Your task to perform on an android device: Look up the best rated drill on Lowes. Image 0: 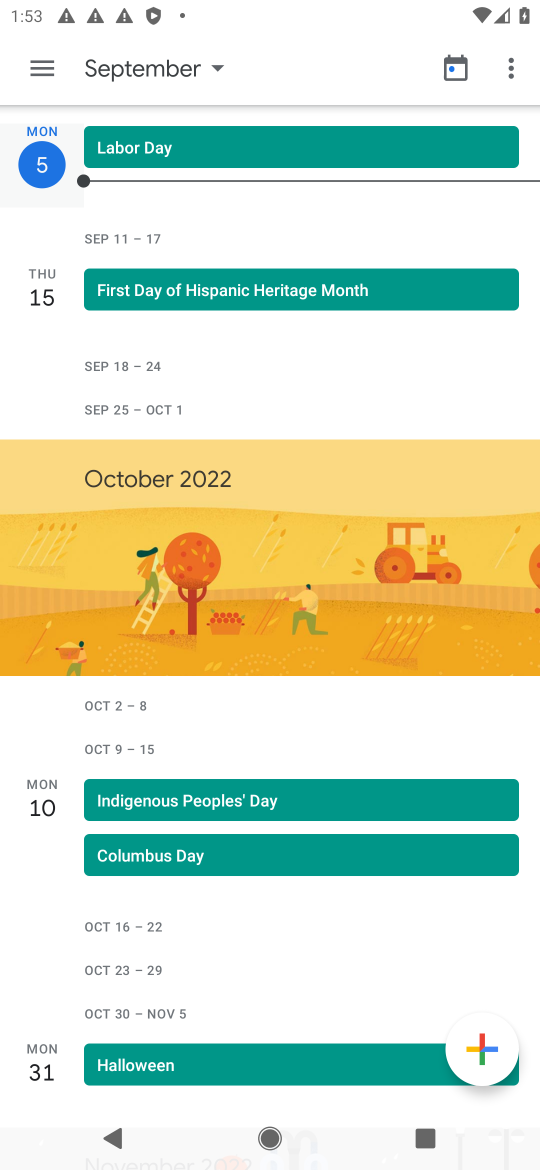
Step 0: press home button
Your task to perform on an android device: Look up the best rated drill on Lowes. Image 1: 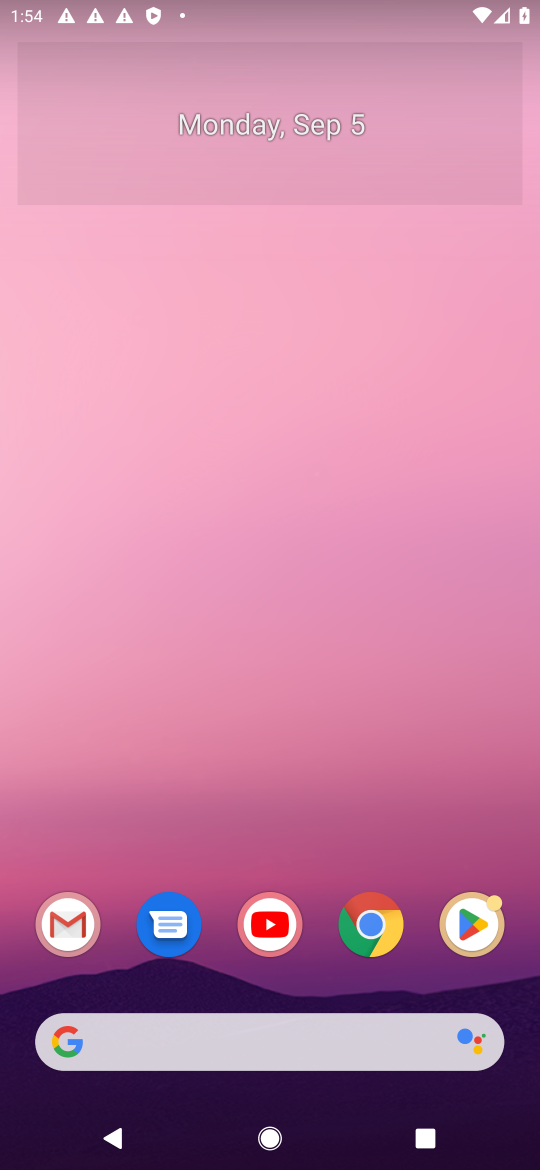
Step 1: drag from (322, 990) to (357, 430)
Your task to perform on an android device: Look up the best rated drill on Lowes. Image 2: 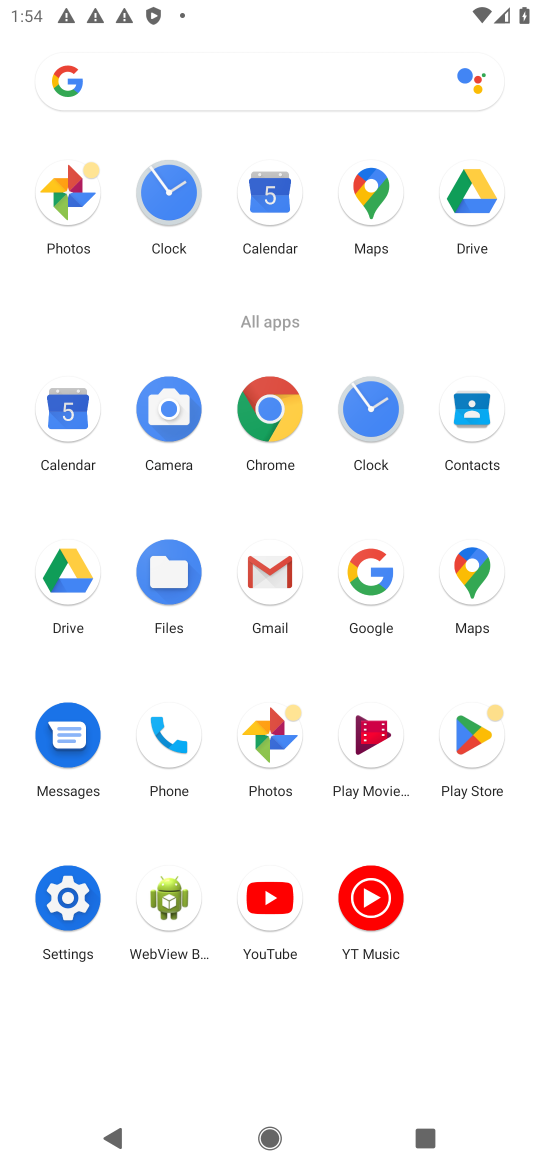
Step 2: click (272, 450)
Your task to perform on an android device: Look up the best rated drill on Lowes. Image 3: 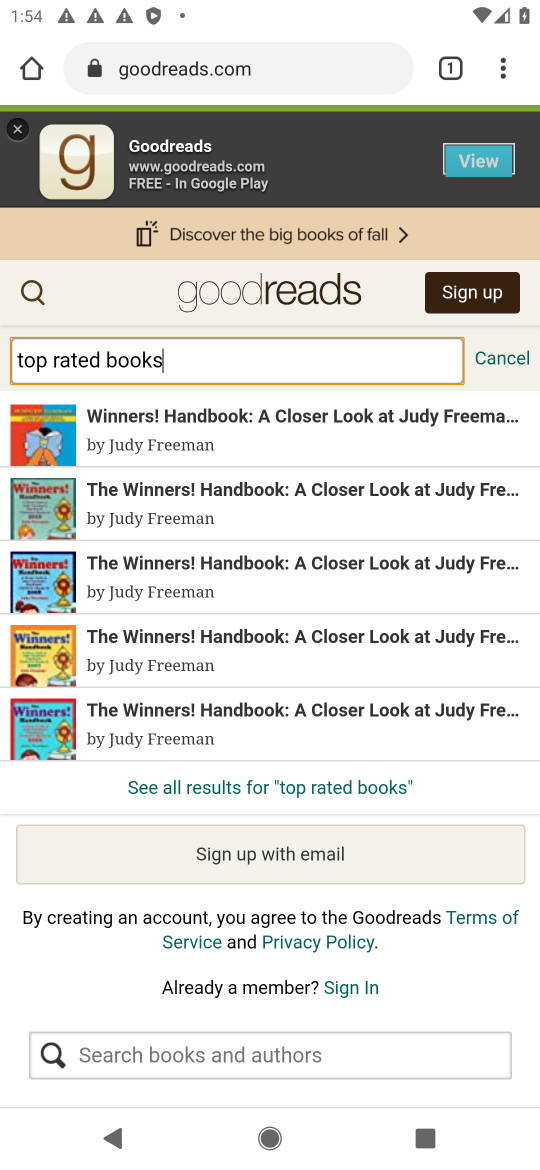
Step 3: click (335, 72)
Your task to perform on an android device: Look up the best rated drill on Lowes. Image 4: 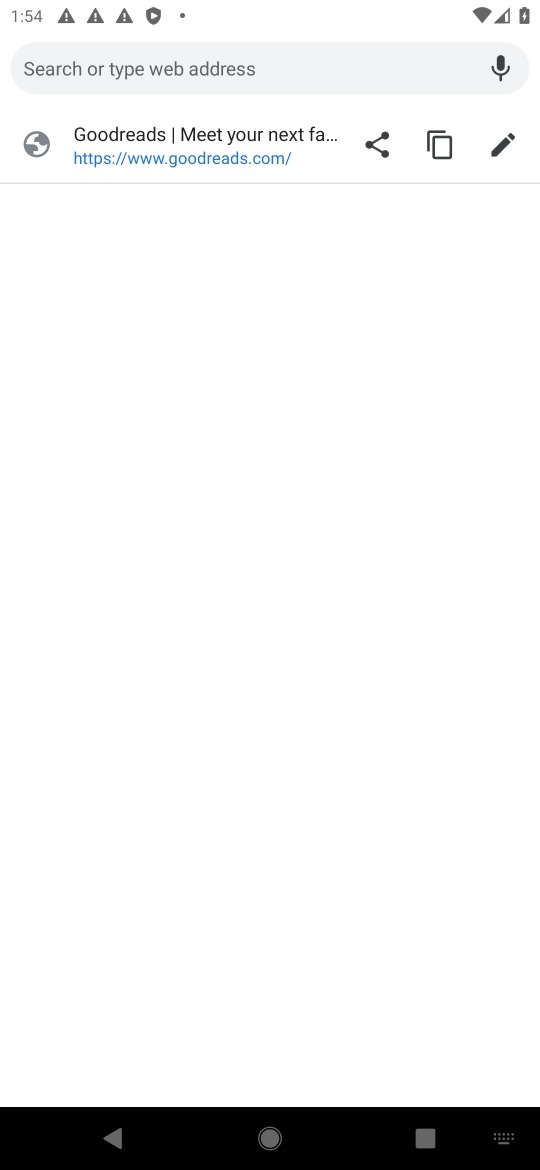
Step 4: type "lowes"
Your task to perform on an android device: Look up the best rated drill on Lowes. Image 5: 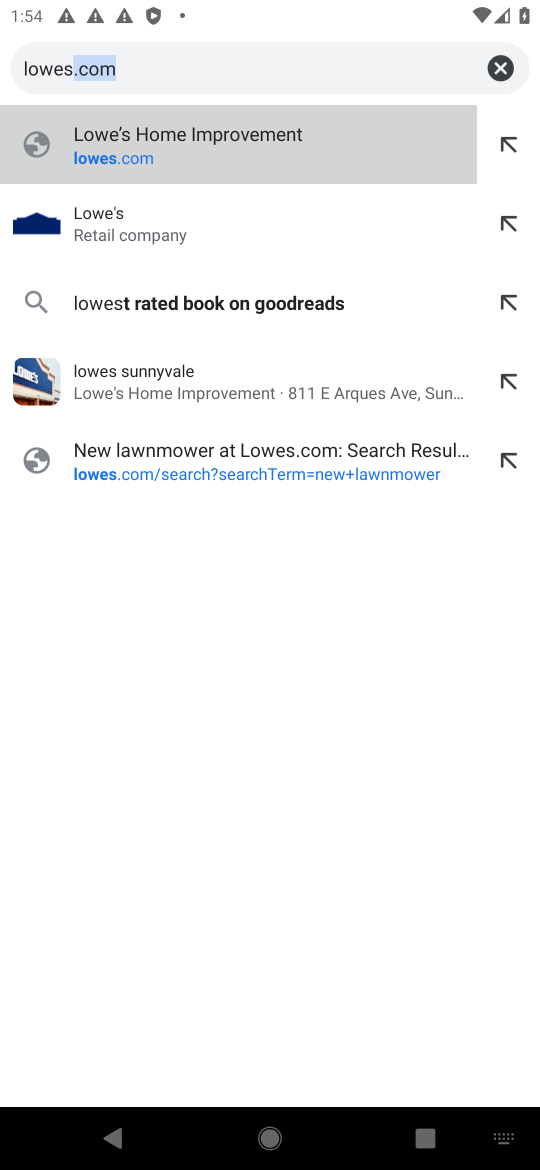
Step 5: click (265, 153)
Your task to perform on an android device: Look up the best rated drill on Lowes. Image 6: 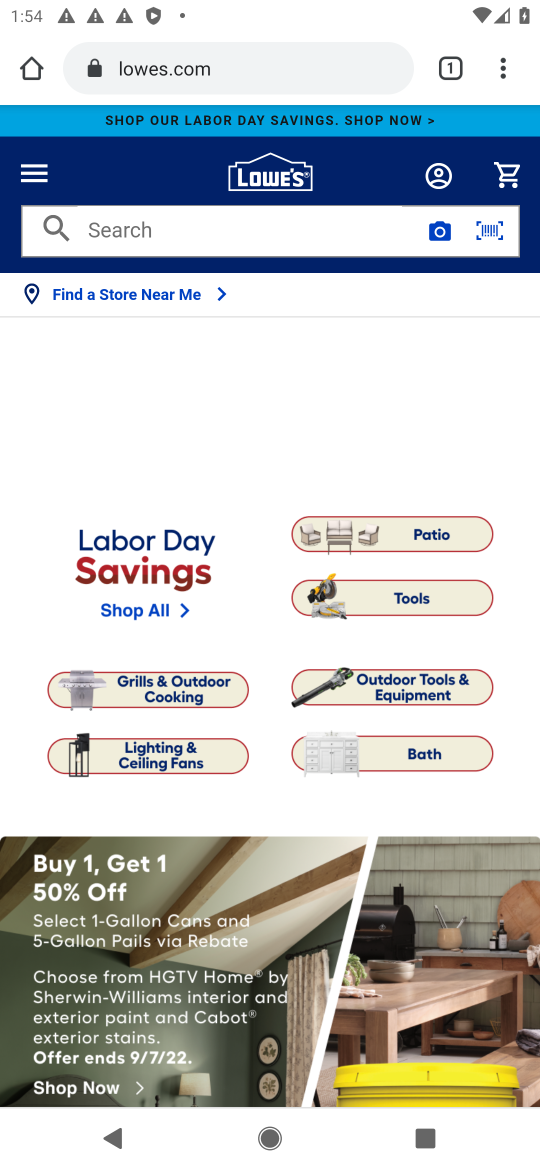
Step 6: click (281, 224)
Your task to perform on an android device: Look up the best rated drill on Lowes. Image 7: 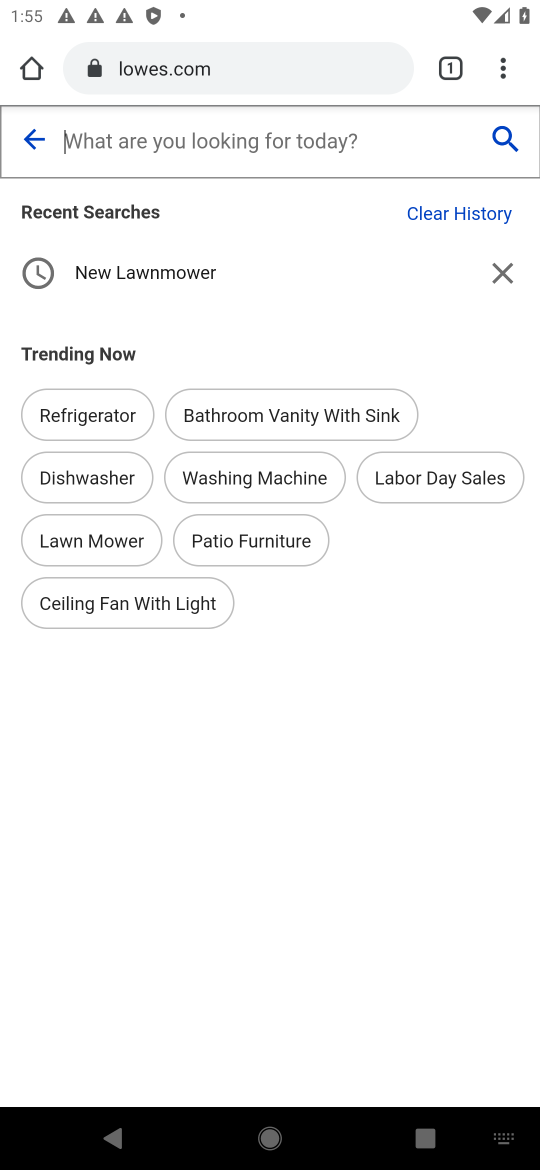
Step 7: type "best rated grill"
Your task to perform on an android device: Look up the best rated drill on Lowes. Image 8: 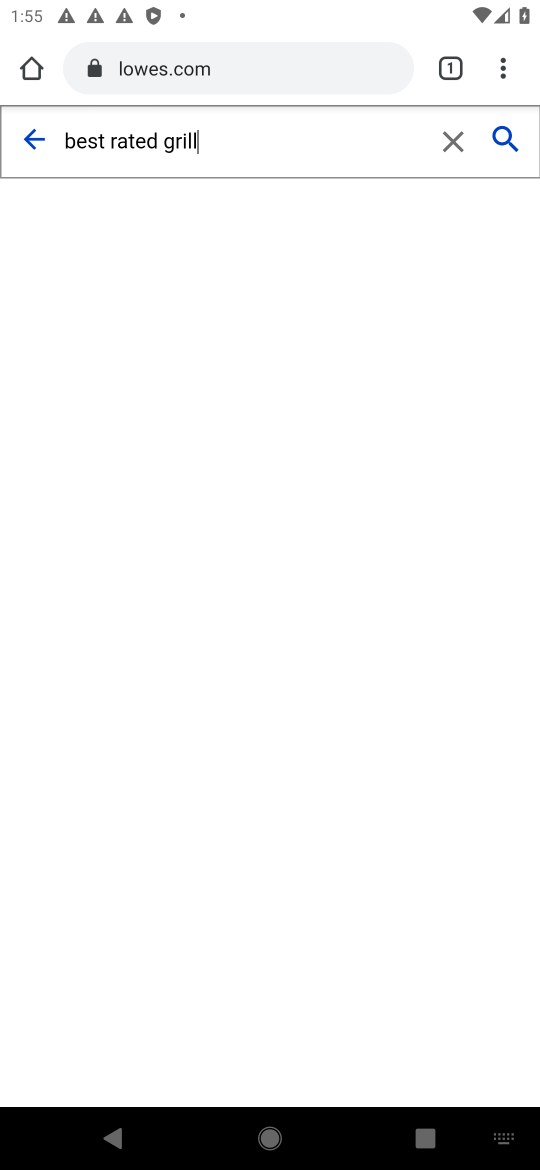
Step 8: click (510, 142)
Your task to perform on an android device: Look up the best rated drill on Lowes. Image 9: 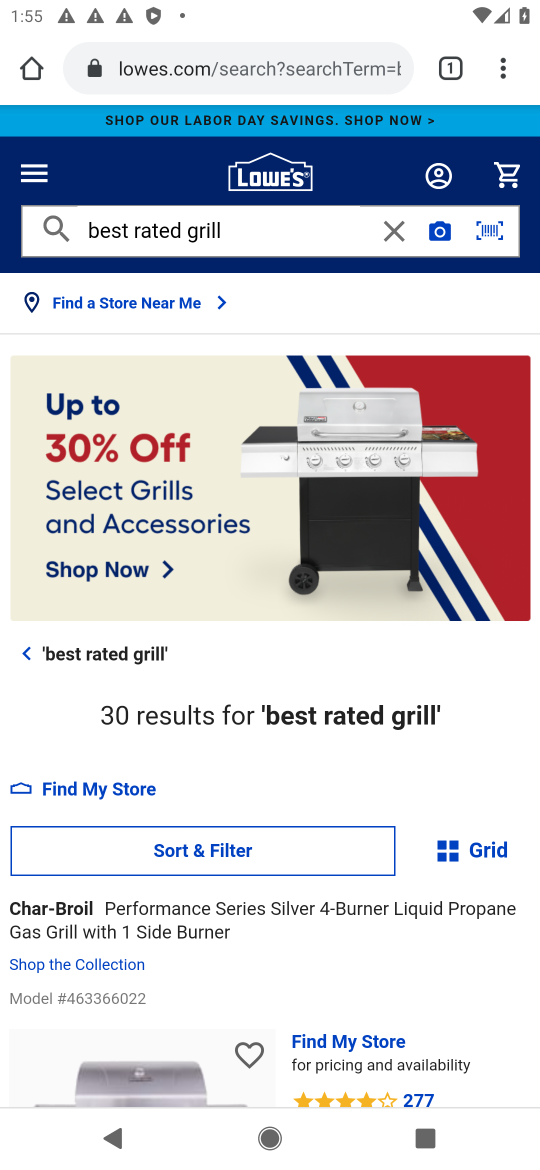
Step 9: task complete